Your task to perform on an android device: Show me the alarms in the clock app Image 0: 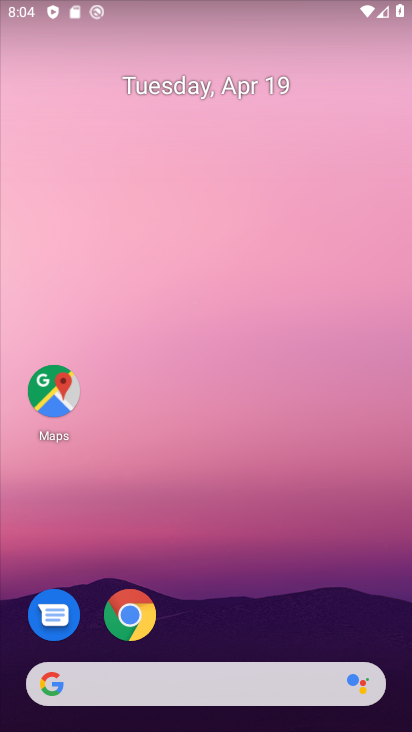
Step 0: drag from (271, 497) to (258, 54)
Your task to perform on an android device: Show me the alarms in the clock app Image 1: 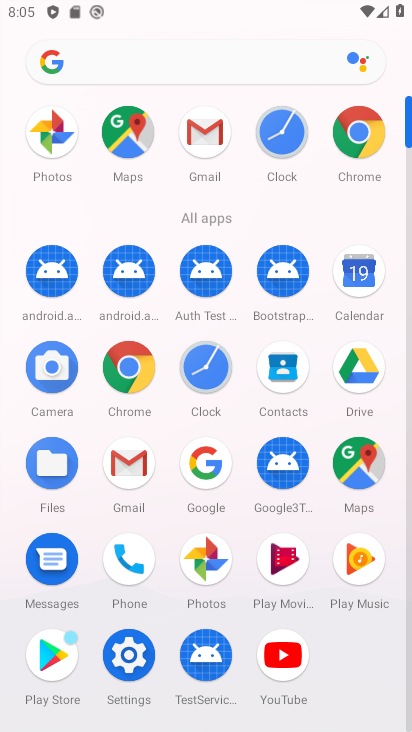
Step 1: drag from (7, 185) to (3, 132)
Your task to perform on an android device: Show me the alarms in the clock app Image 2: 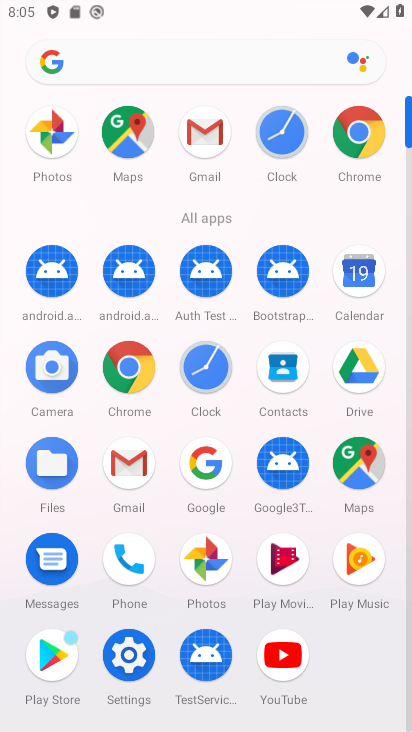
Step 2: click (281, 133)
Your task to perform on an android device: Show me the alarms in the clock app Image 3: 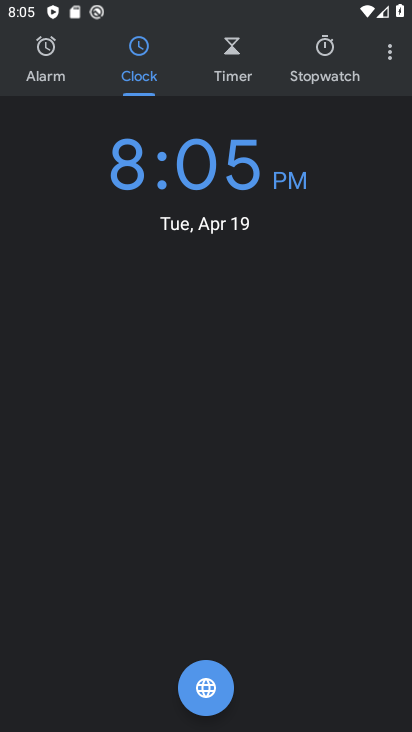
Step 3: click (42, 56)
Your task to perform on an android device: Show me the alarms in the clock app Image 4: 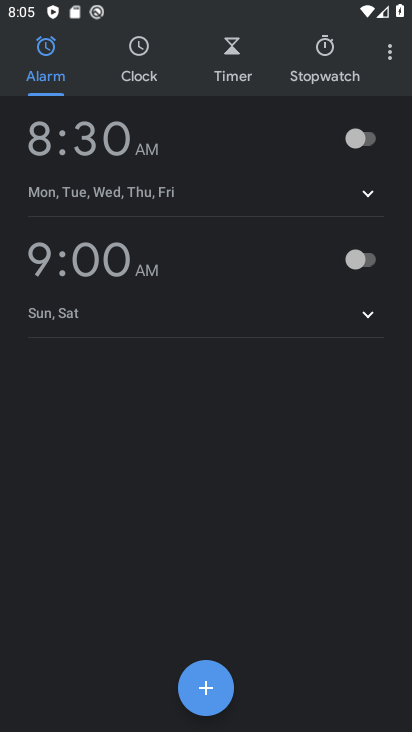
Step 4: task complete